Your task to perform on an android device: Open calendar and show me the fourth week of next month Image 0: 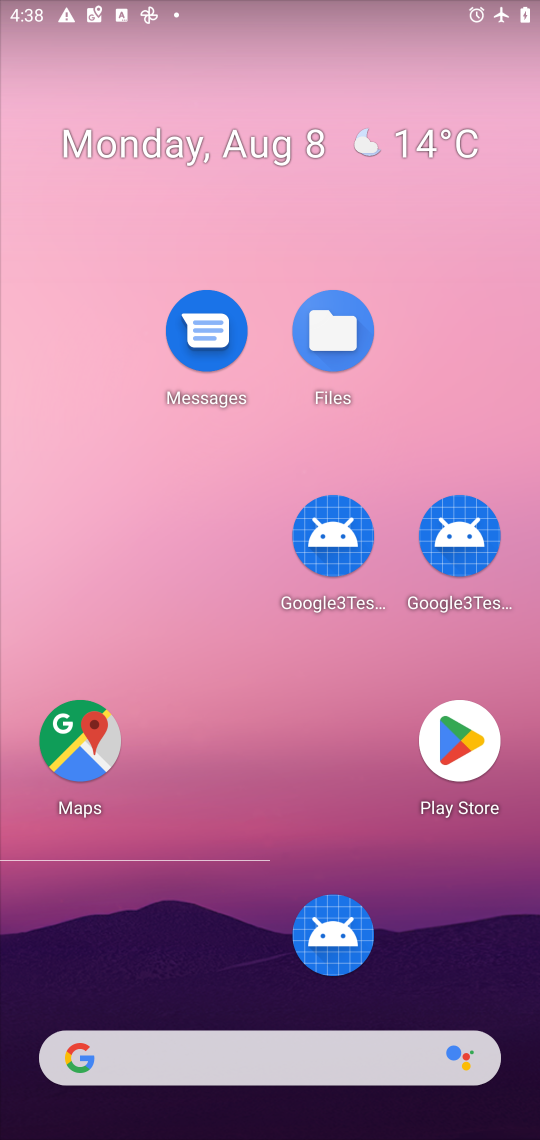
Step 0: drag from (350, 1067) to (285, 0)
Your task to perform on an android device: Open calendar and show me the fourth week of next month Image 1: 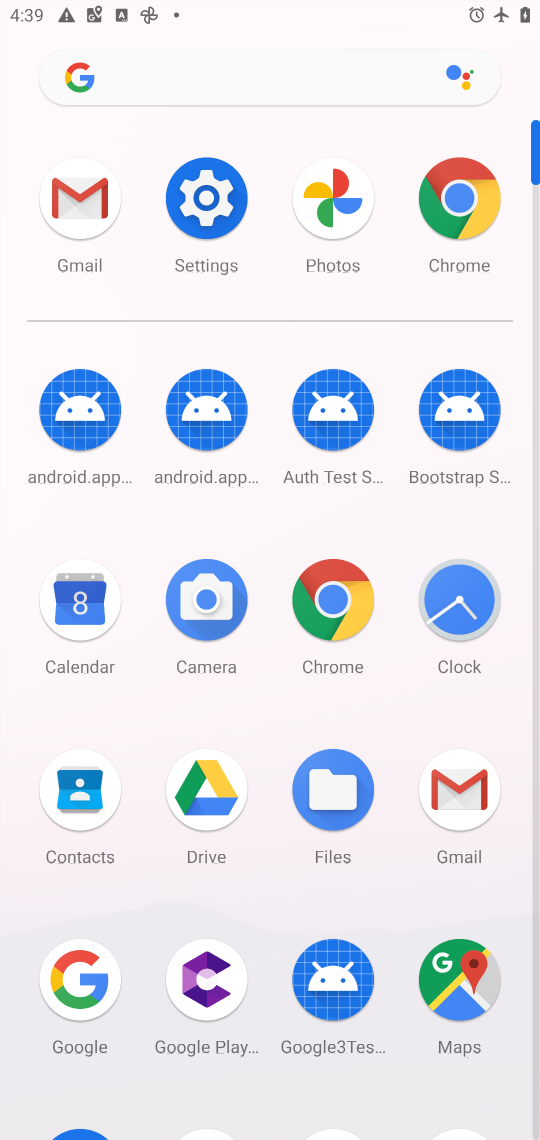
Step 1: click (65, 588)
Your task to perform on an android device: Open calendar and show me the fourth week of next month Image 2: 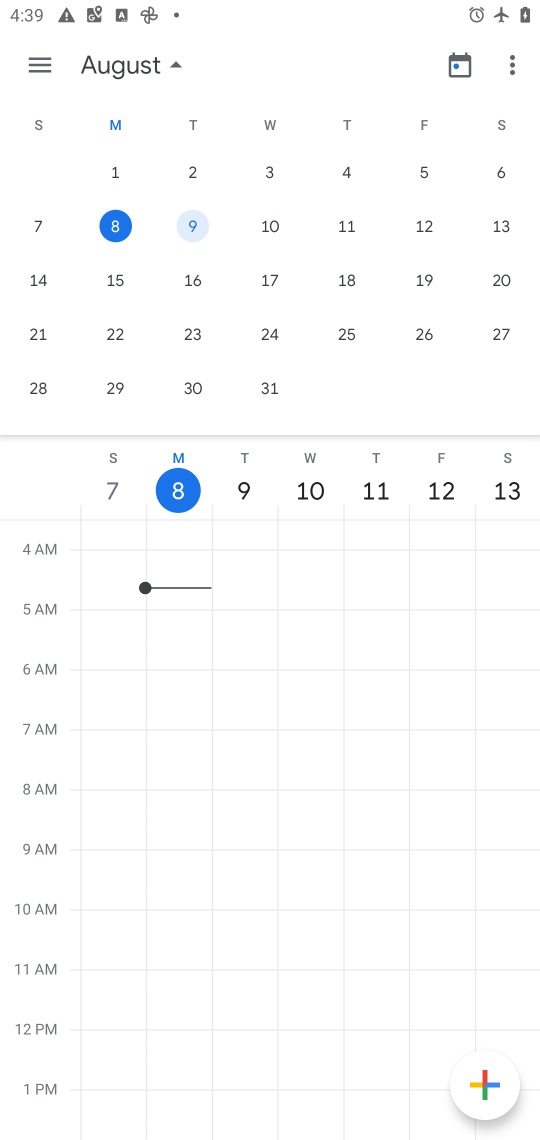
Step 2: drag from (441, 386) to (116, 371)
Your task to perform on an android device: Open calendar and show me the fourth week of next month Image 3: 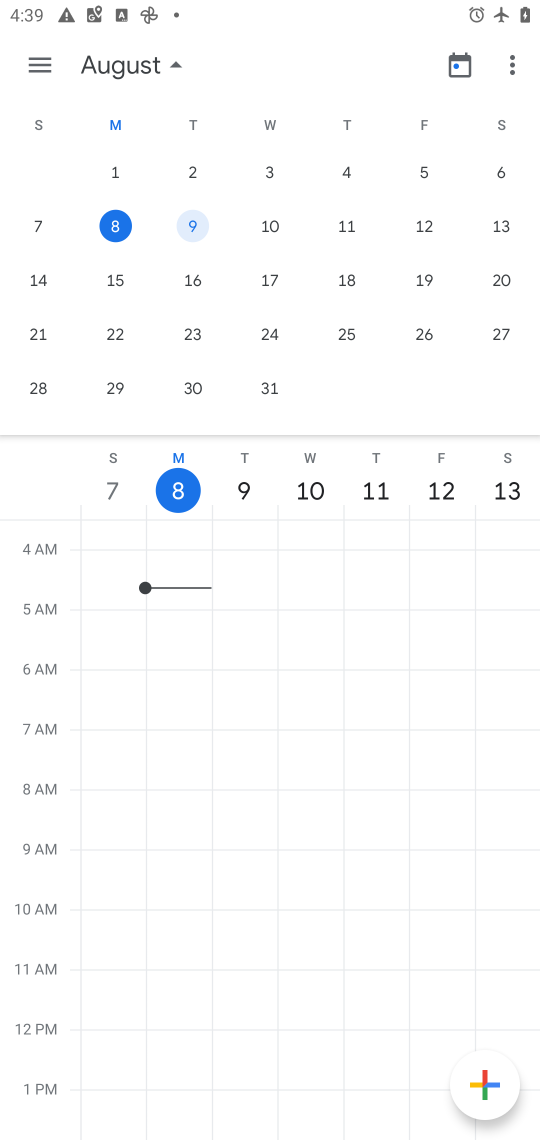
Step 3: click (268, 334)
Your task to perform on an android device: Open calendar and show me the fourth week of next month Image 4: 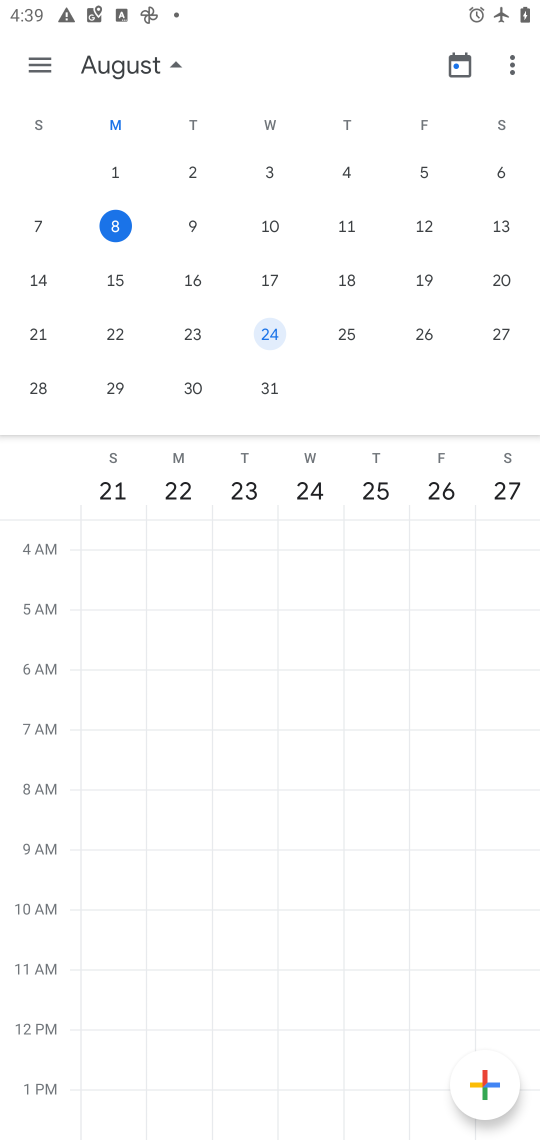
Step 4: drag from (425, 381) to (17, 362)
Your task to perform on an android device: Open calendar and show me the fourth week of next month Image 5: 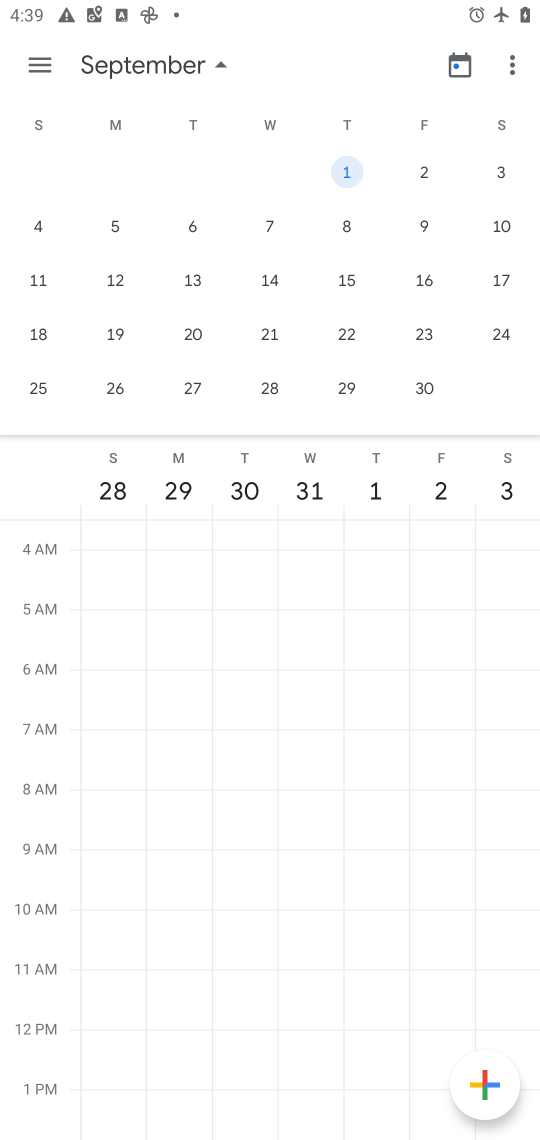
Step 5: click (345, 337)
Your task to perform on an android device: Open calendar and show me the fourth week of next month Image 6: 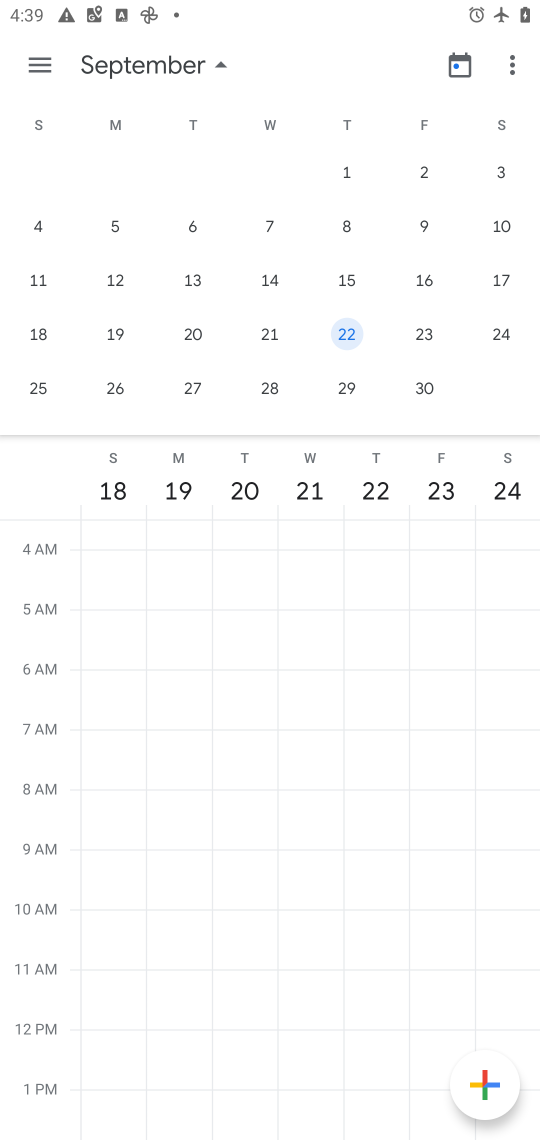
Step 6: task complete